Your task to perform on an android device: allow cookies in the chrome app Image 0: 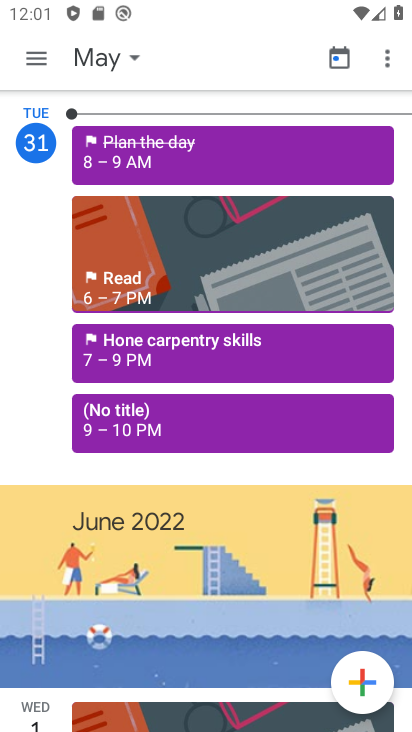
Step 0: press home button
Your task to perform on an android device: allow cookies in the chrome app Image 1: 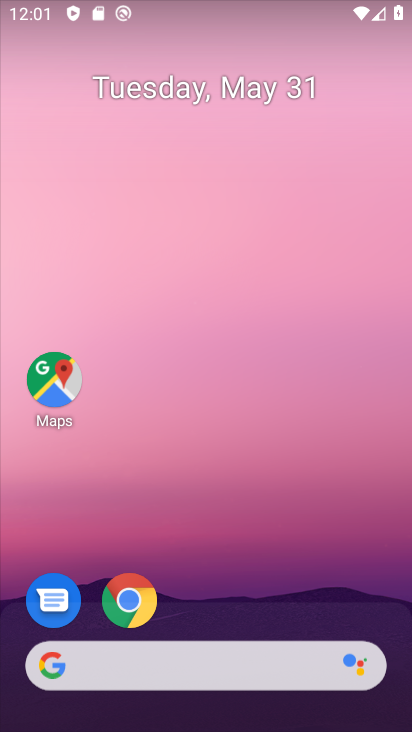
Step 1: click (143, 610)
Your task to perform on an android device: allow cookies in the chrome app Image 2: 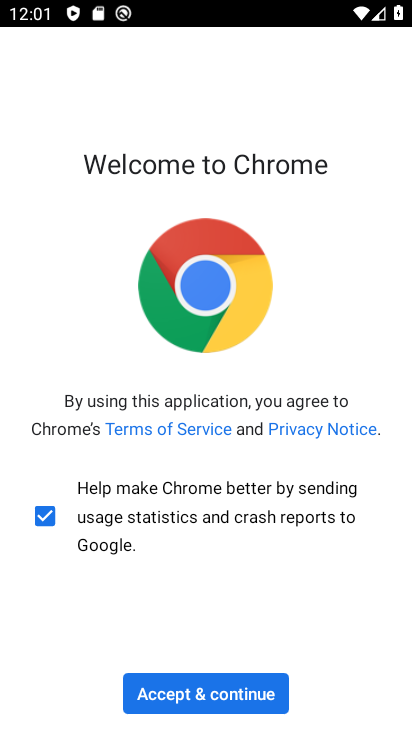
Step 2: click (209, 696)
Your task to perform on an android device: allow cookies in the chrome app Image 3: 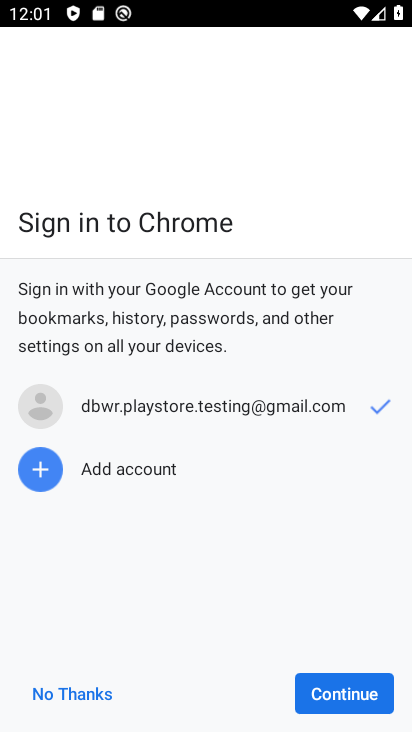
Step 3: click (340, 686)
Your task to perform on an android device: allow cookies in the chrome app Image 4: 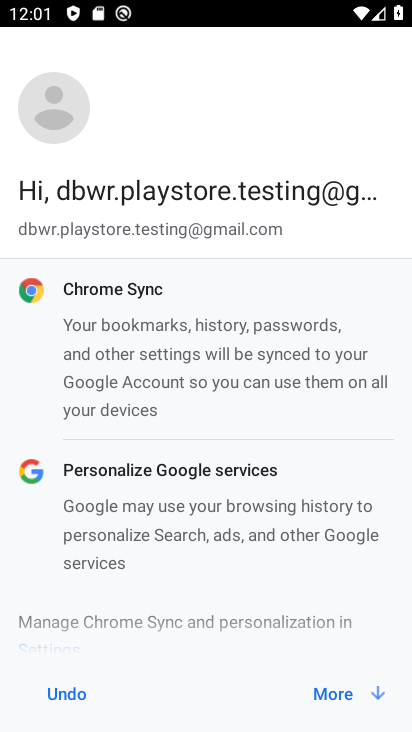
Step 4: click (337, 696)
Your task to perform on an android device: allow cookies in the chrome app Image 5: 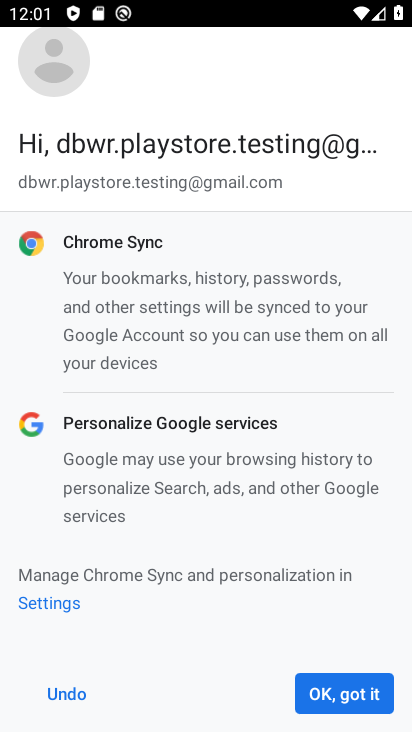
Step 5: click (363, 702)
Your task to perform on an android device: allow cookies in the chrome app Image 6: 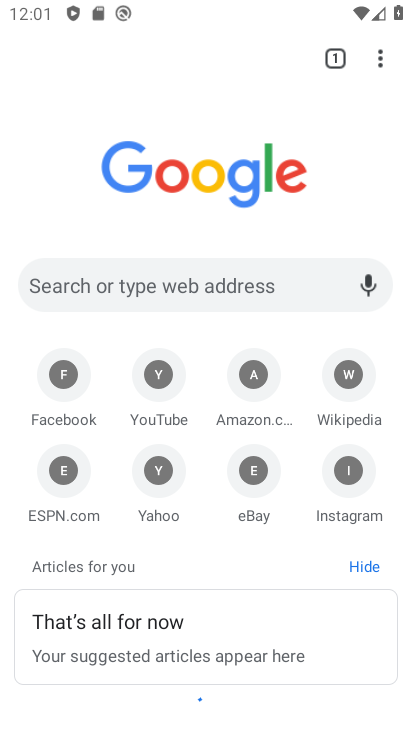
Step 6: click (380, 51)
Your task to perform on an android device: allow cookies in the chrome app Image 7: 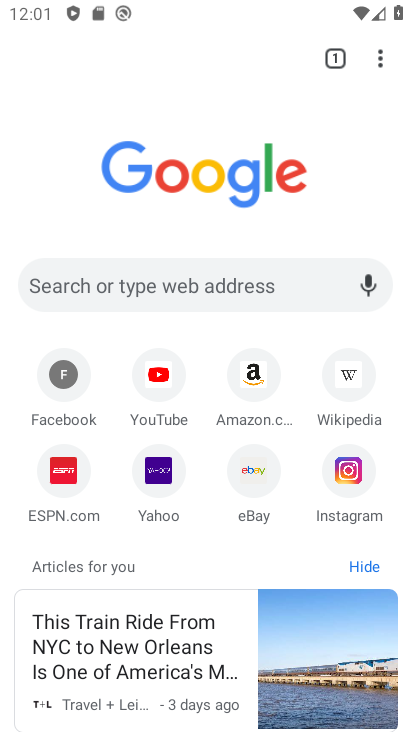
Step 7: drag from (380, 51) to (275, 492)
Your task to perform on an android device: allow cookies in the chrome app Image 8: 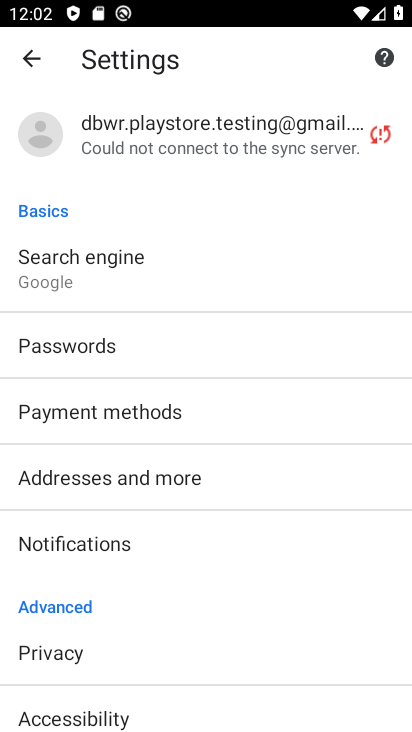
Step 8: drag from (321, 679) to (340, 323)
Your task to perform on an android device: allow cookies in the chrome app Image 9: 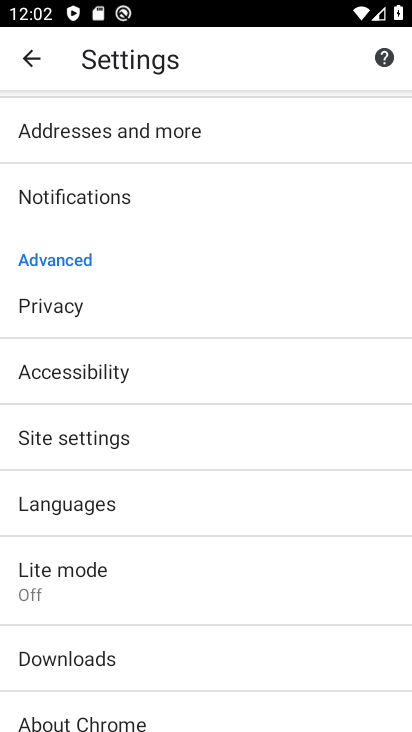
Step 9: click (220, 441)
Your task to perform on an android device: allow cookies in the chrome app Image 10: 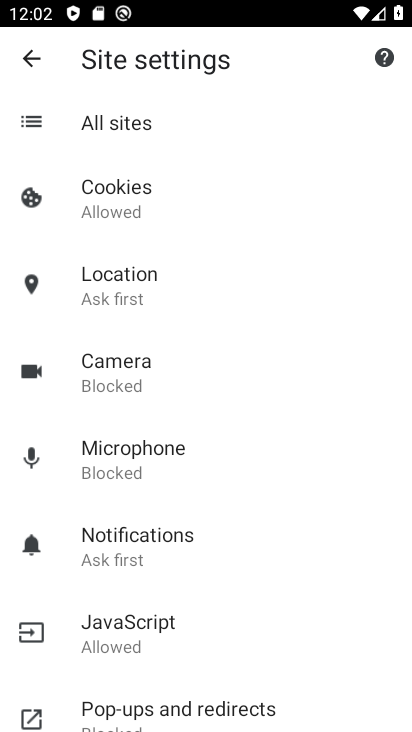
Step 10: click (122, 205)
Your task to perform on an android device: allow cookies in the chrome app Image 11: 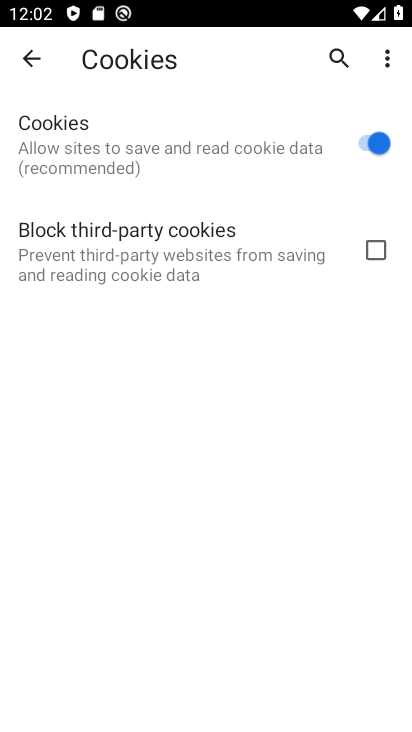
Step 11: task complete